Your task to perform on an android device: toggle wifi Image 0: 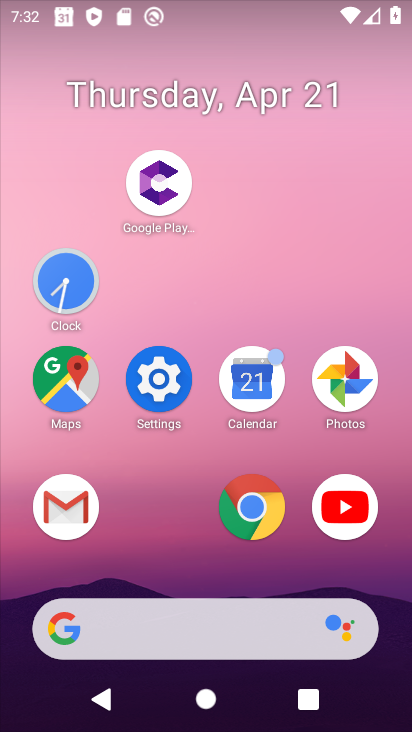
Step 0: click (156, 371)
Your task to perform on an android device: toggle wifi Image 1: 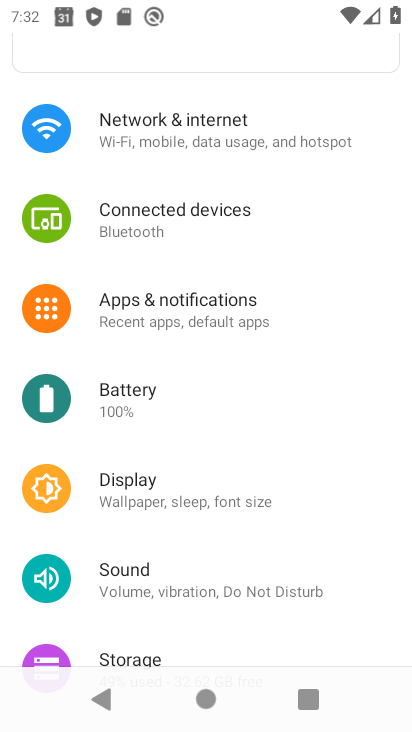
Step 1: click (174, 115)
Your task to perform on an android device: toggle wifi Image 2: 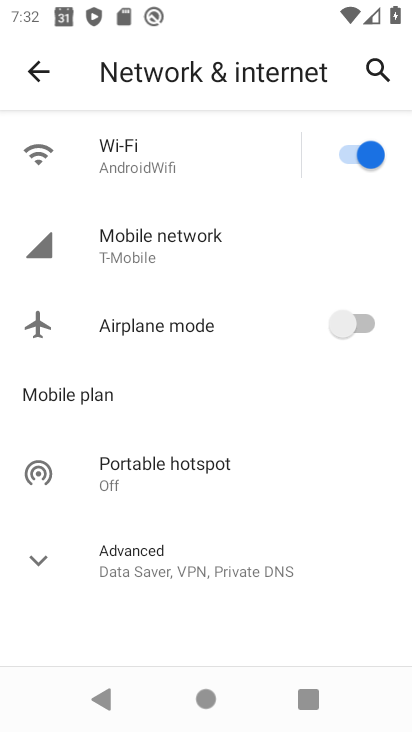
Step 2: click (364, 157)
Your task to perform on an android device: toggle wifi Image 3: 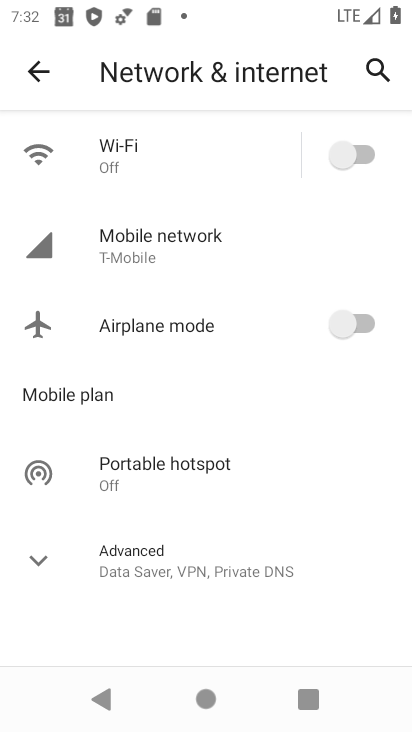
Step 3: task complete